Your task to perform on an android device: What's the weather? Image 0: 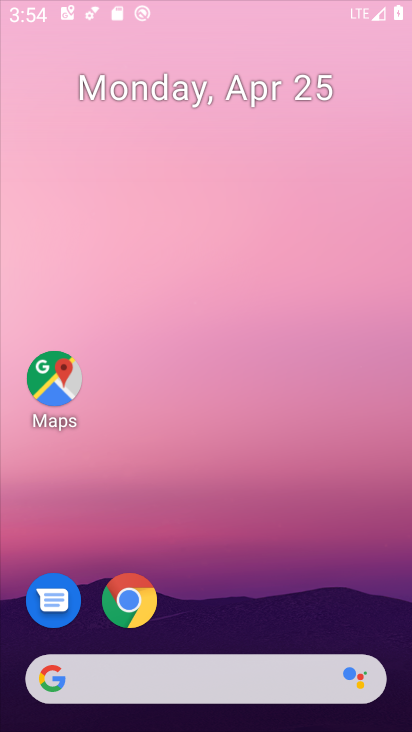
Step 0: click (211, 23)
Your task to perform on an android device: What's the weather? Image 1: 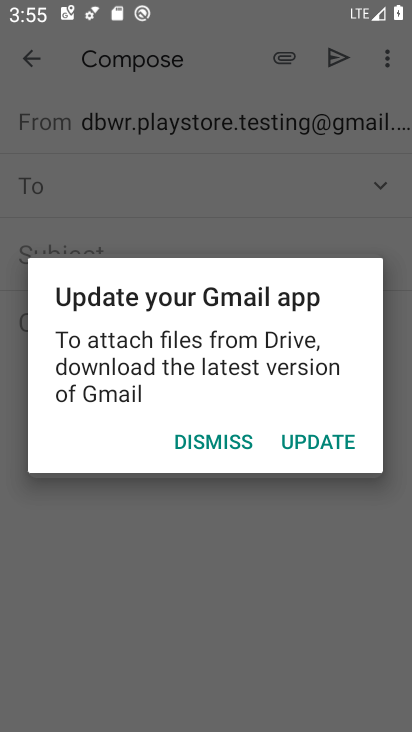
Step 1: press back button
Your task to perform on an android device: What's the weather? Image 2: 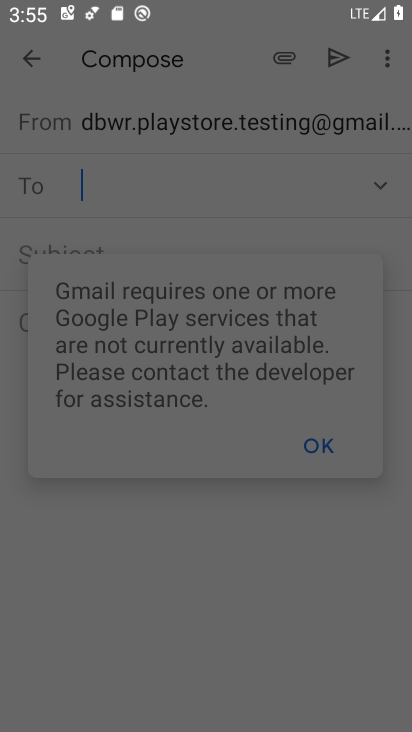
Step 2: press back button
Your task to perform on an android device: What's the weather? Image 3: 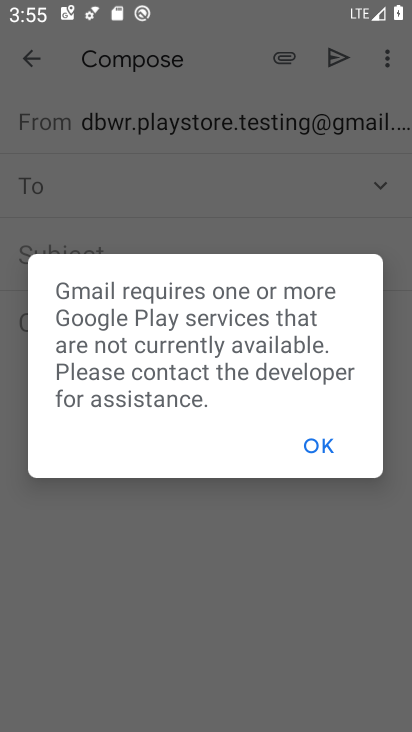
Step 3: press home button
Your task to perform on an android device: What's the weather? Image 4: 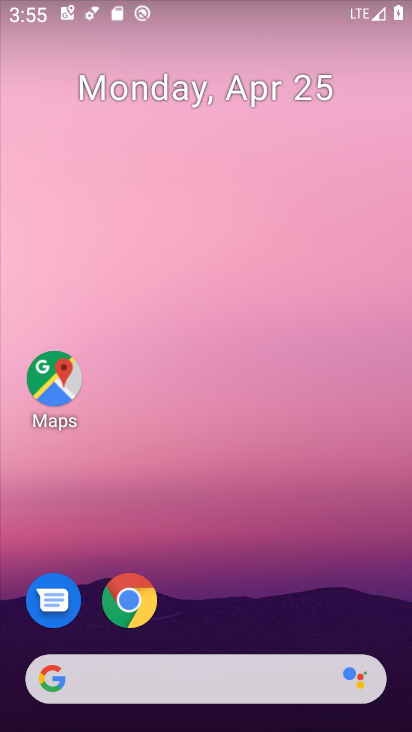
Step 4: drag from (256, 493) to (224, 18)
Your task to perform on an android device: What's the weather? Image 5: 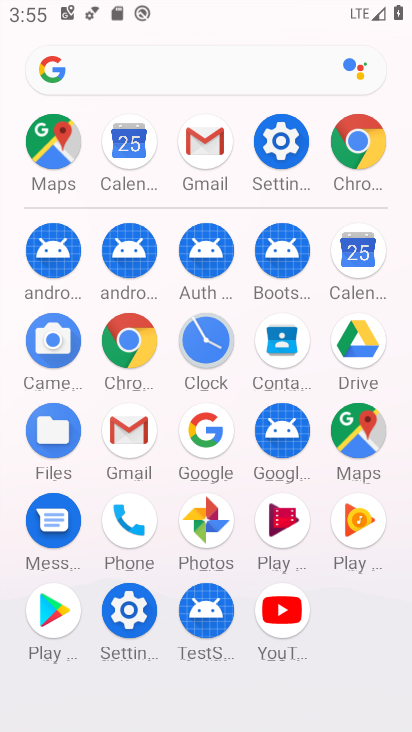
Step 5: drag from (1, 545) to (0, 227)
Your task to perform on an android device: What's the weather? Image 6: 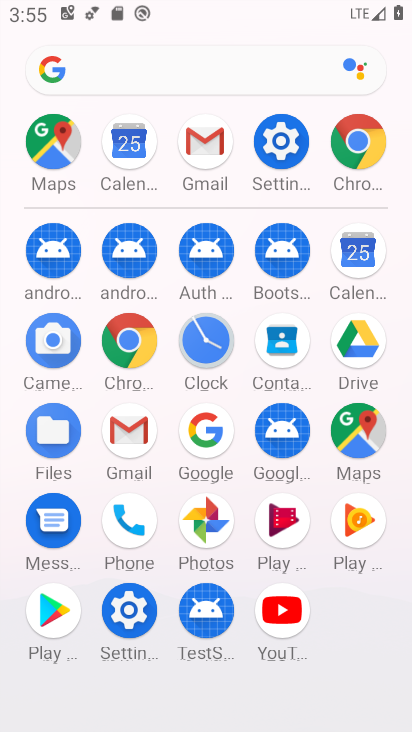
Step 6: click (148, 66)
Your task to perform on an android device: What's the weather? Image 7: 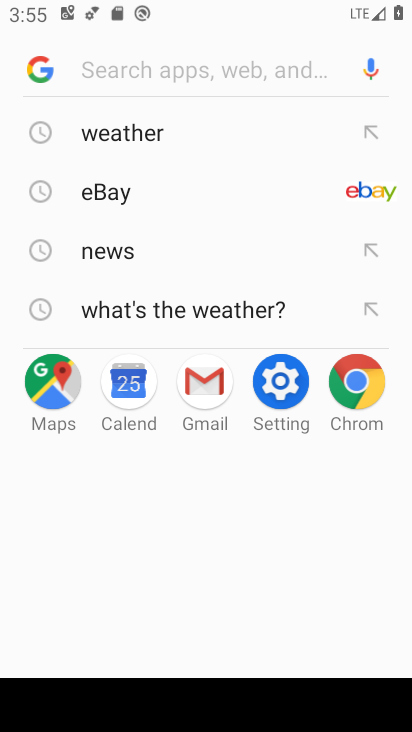
Step 7: click (145, 137)
Your task to perform on an android device: What's the weather? Image 8: 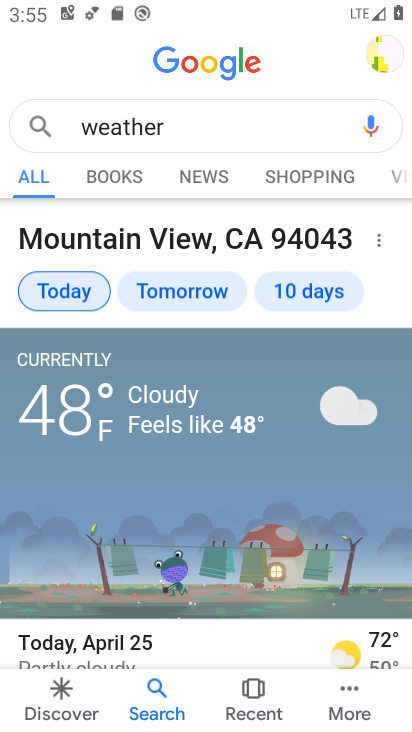
Step 8: task complete